Your task to perform on an android device: change text size in settings app Image 0: 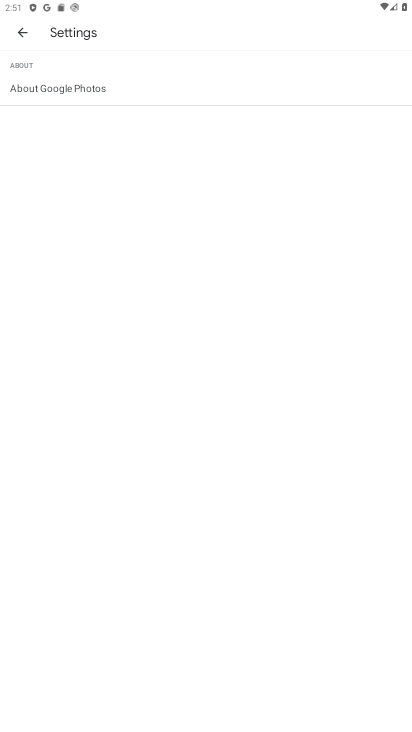
Step 0: press home button
Your task to perform on an android device: change text size in settings app Image 1: 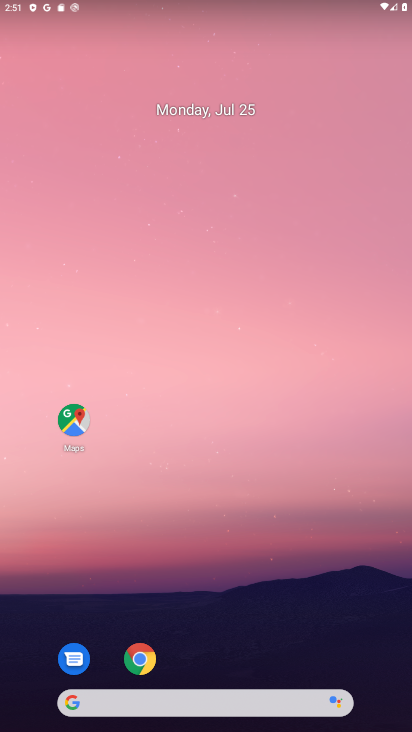
Step 1: drag from (235, 676) to (194, 37)
Your task to perform on an android device: change text size in settings app Image 2: 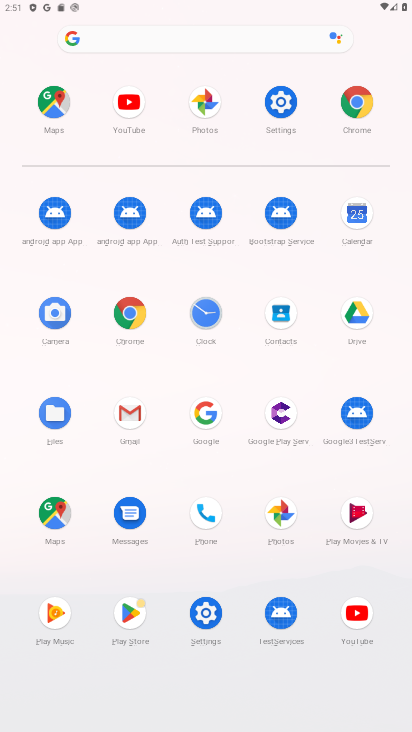
Step 2: click (216, 620)
Your task to perform on an android device: change text size in settings app Image 3: 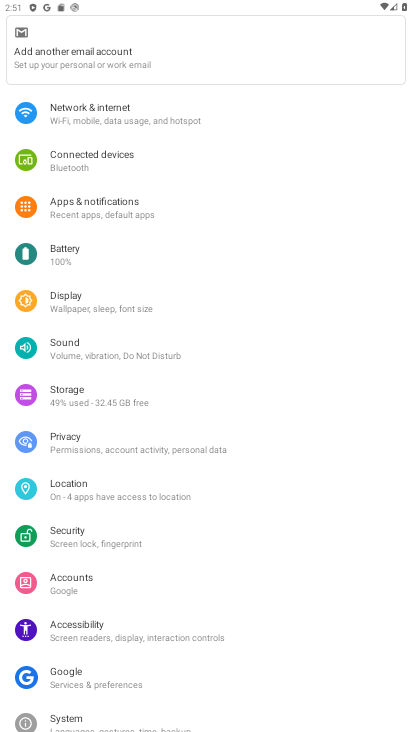
Step 3: click (52, 307)
Your task to perform on an android device: change text size in settings app Image 4: 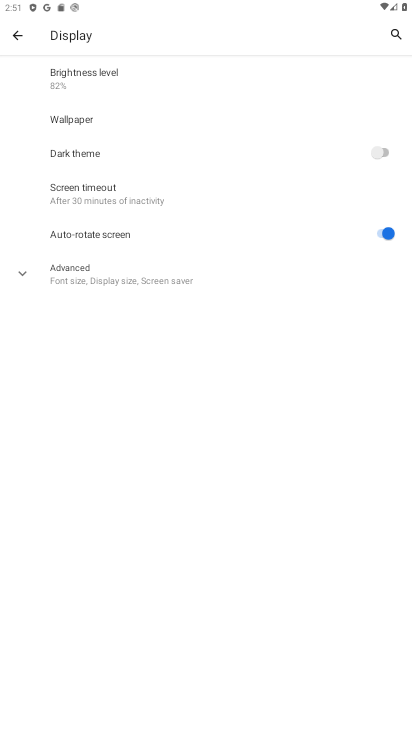
Step 4: click (72, 287)
Your task to perform on an android device: change text size in settings app Image 5: 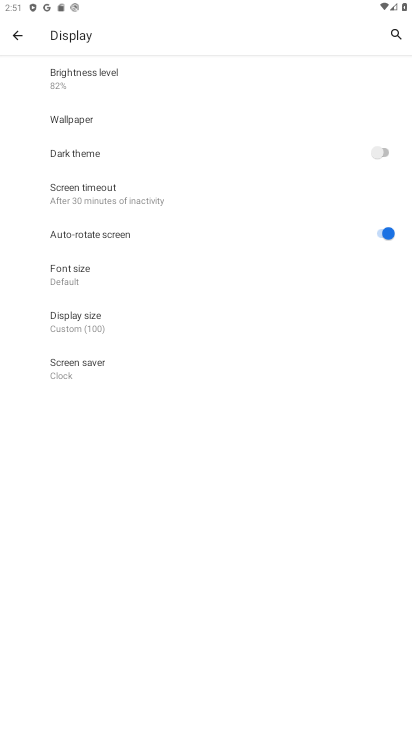
Step 5: click (69, 274)
Your task to perform on an android device: change text size in settings app Image 6: 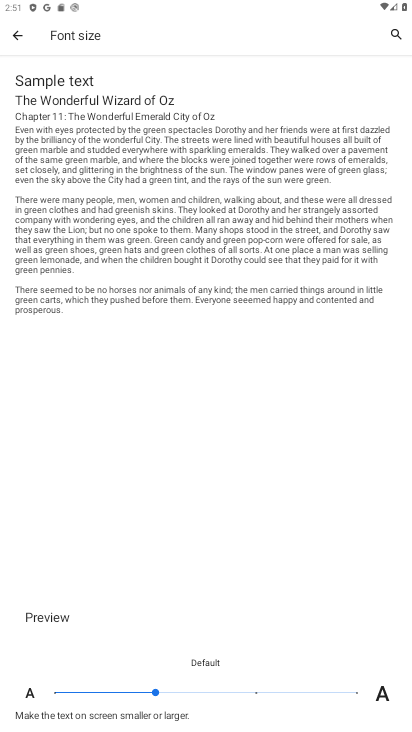
Step 6: click (249, 694)
Your task to perform on an android device: change text size in settings app Image 7: 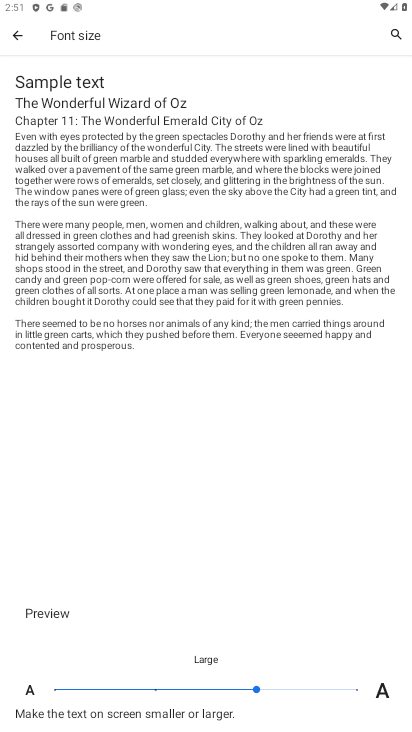
Step 7: task complete